Your task to perform on an android device: Open calendar and show me the fourth week of next month Image 0: 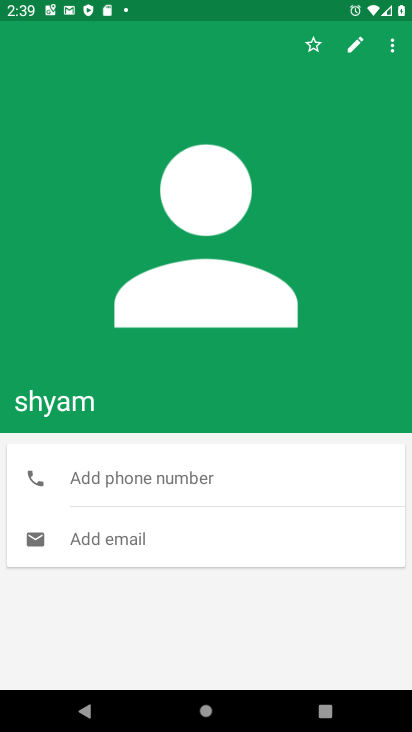
Step 0: press home button
Your task to perform on an android device: Open calendar and show me the fourth week of next month Image 1: 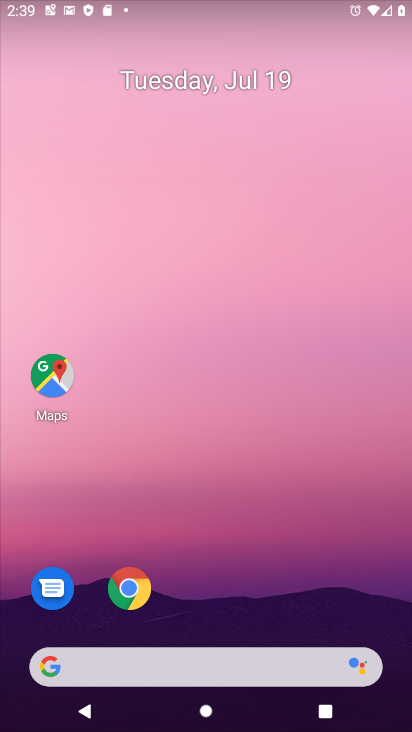
Step 1: drag from (359, 564) to (267, 39)
Your task to perform on an android device: Open calendar and show me the fourth week of next month Image 2: 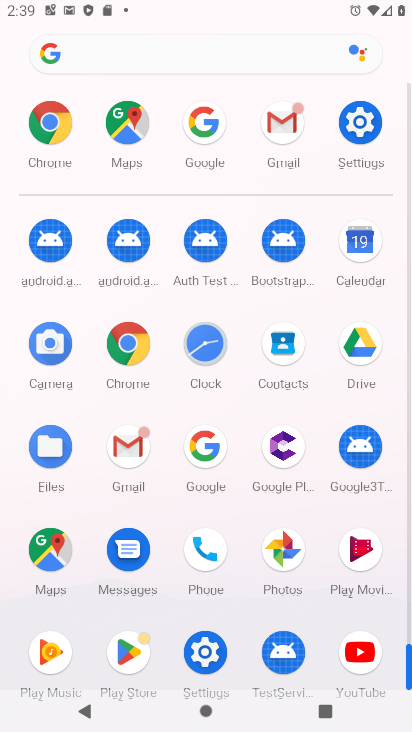
Step 2: click (354, 246)
Your task to perform on an android device: Open calendar and show me the fourth week of next month Image 3: 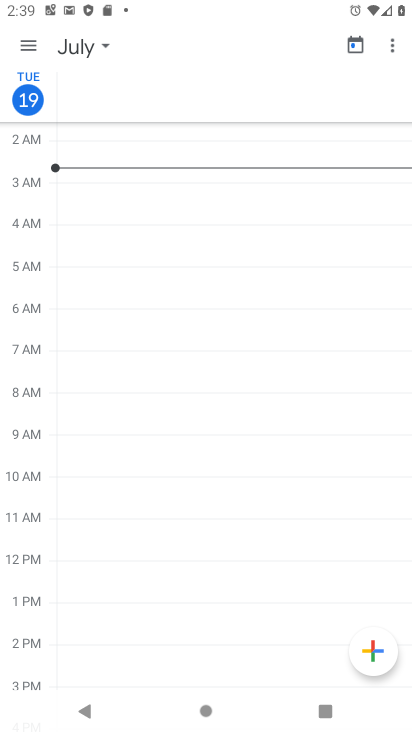
Step 3: click (89, 52)
Your task to perform on an android device: Open calendar and show me the fourth week of next month Image 4: 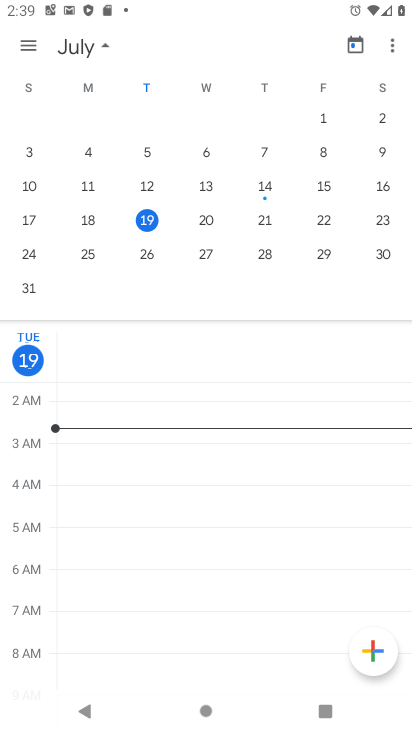
Step 4: drag from (378, 148) to (48, 173)
Your task to perform on an android device: Open calendar and show me the fourth week of next month Image 5: 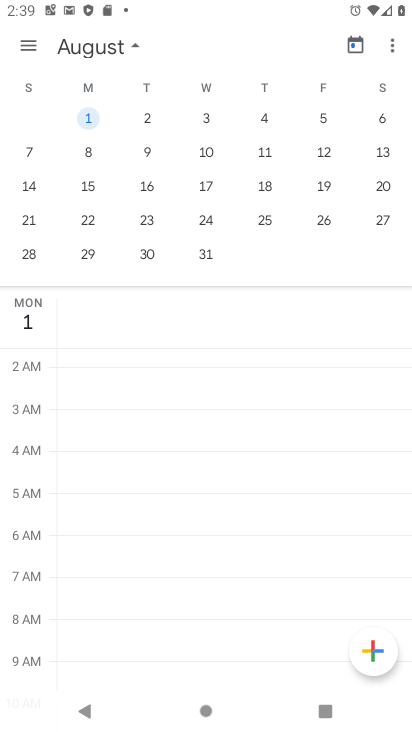
Step 5: click (32, 250)
Your task to perform on an android device: Open calendar and show me the fourth week of next month Image 6: 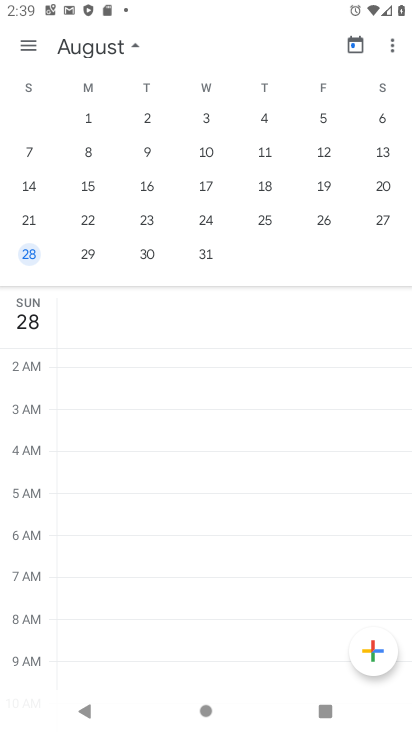
Step 6: task complete